Your task to perform on an android device: Search for vegetarian restaurants on Maps Image 0: 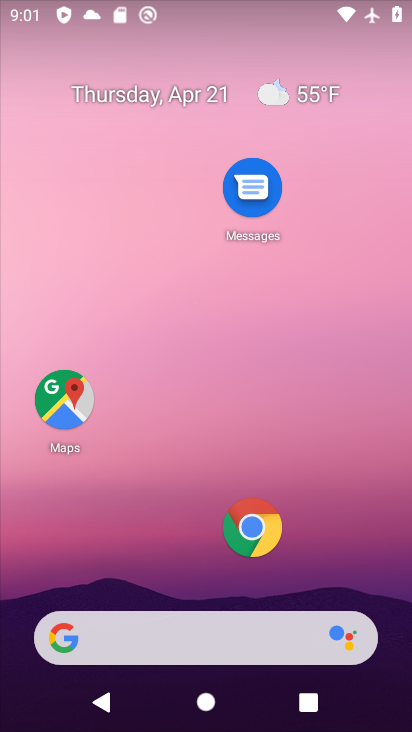
Step 0: drag from (105, 639) to (202, 21)
Your task to perform on an android device: Search for vegetarian restaurants on Maps Image 1: 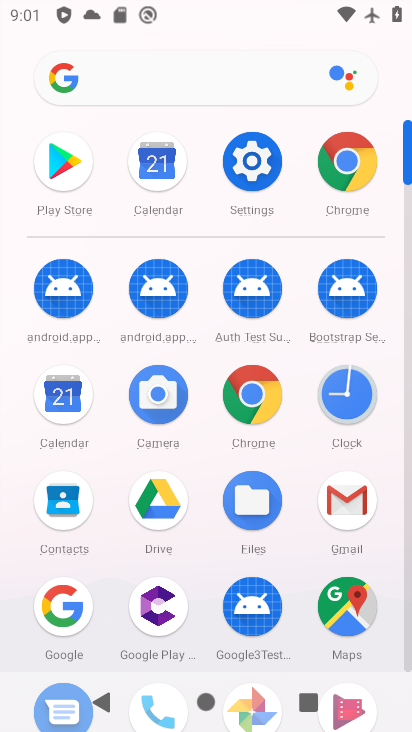
Step 1: click (340, 613)
Your task to perform on an android device: Search for vegetarian restaurants on Maps Image 2: 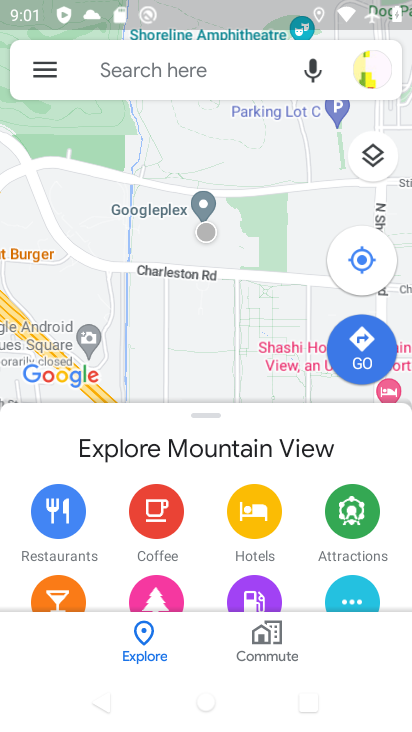
Step 2: click (161, 73)
Your task to perform on an android device: Search for vegetarian restaurants on Maps Image 3: 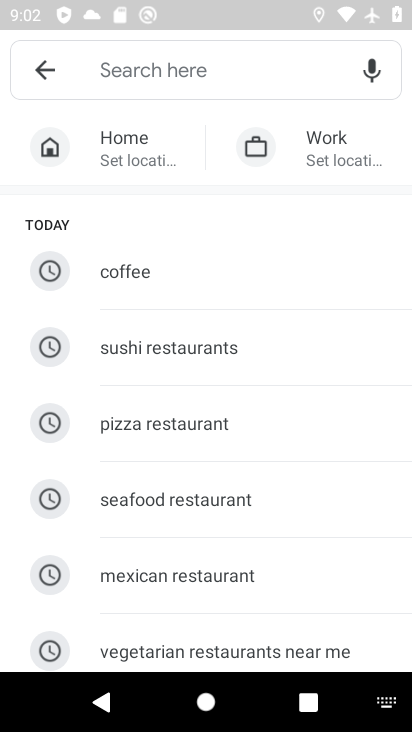
Step 3: click (163, 650)
Your task to perform on an android device: Search for vegetarian restaurants on Maps Image 4: 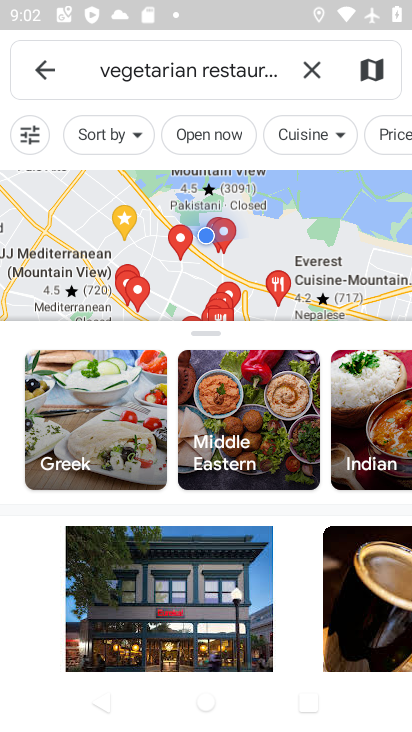
Step 4: task complete